Your task to perform on an android device: Open settings Image 0: 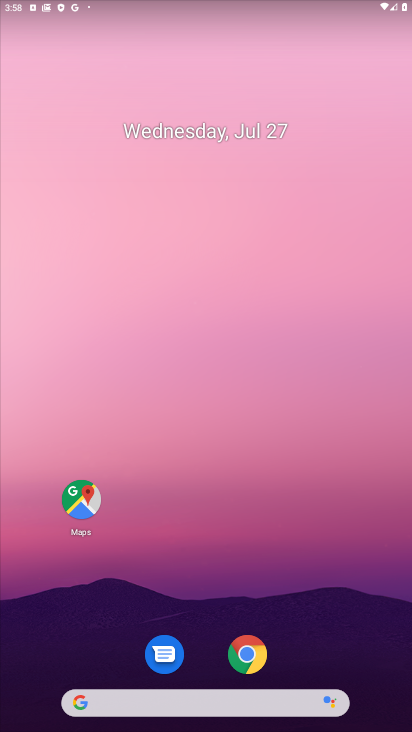
Step 0: drag from (189, 656) to (250, 157)
Your task to perform on an android device: Open settings Image 1: 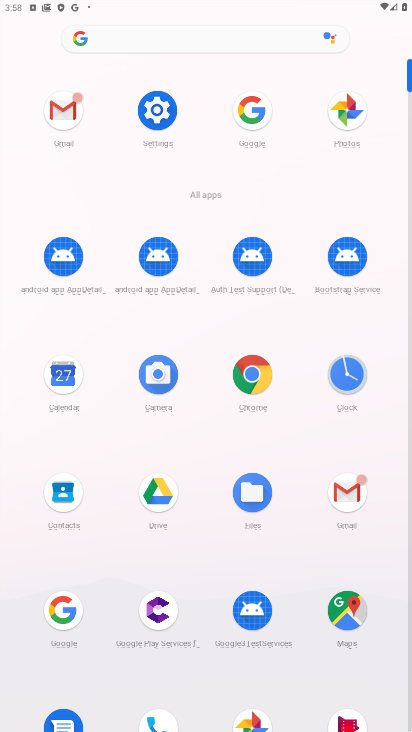
Step 1: click (149, 107)
Your task to perform on an android device: Open settings Image 2: 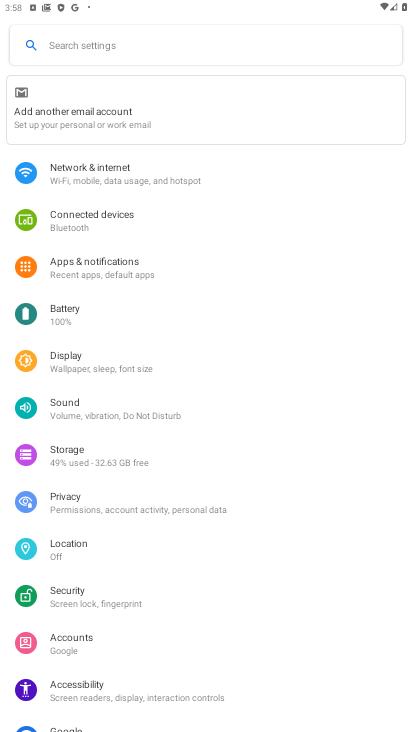
Step 2: task complete